Your task to perform on an android device: open chrome and create a bookmark for the current page Image 0: 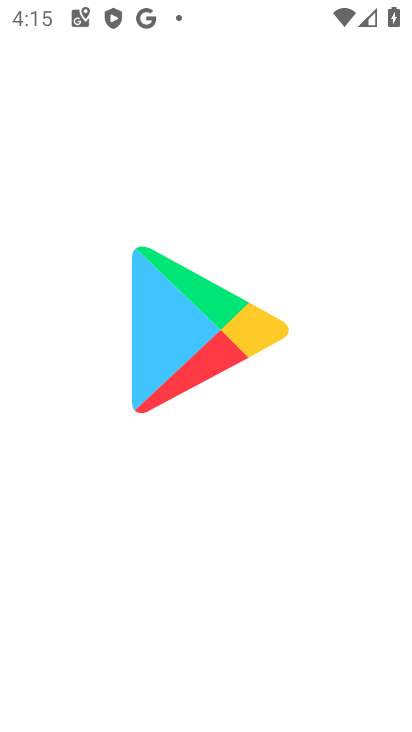
Step 0: click (295, 99)
Your task to perform on an android device: open chrome and create a bookmark for the current page Image 1: 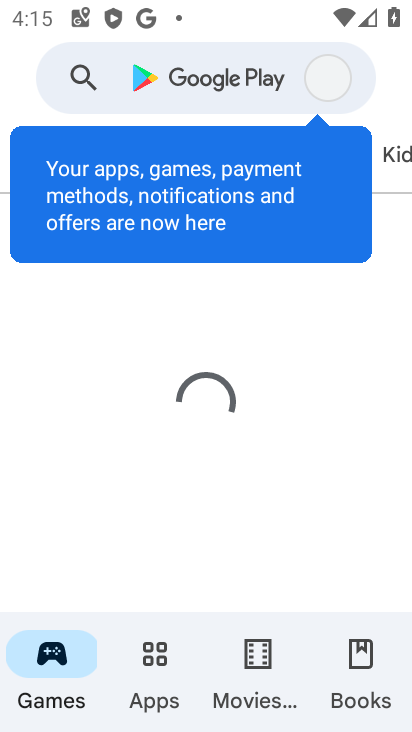
Step 1: press back button
Your task to perform on an android device: open chrome and create a bookmark for the current page Image 2: 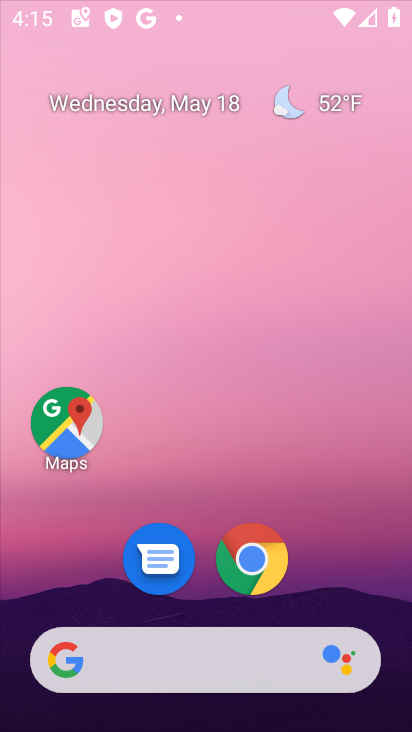
Step 2: press back button
Your task to perform on an android device: open chrome and create a bookmark for the current page Image 3: 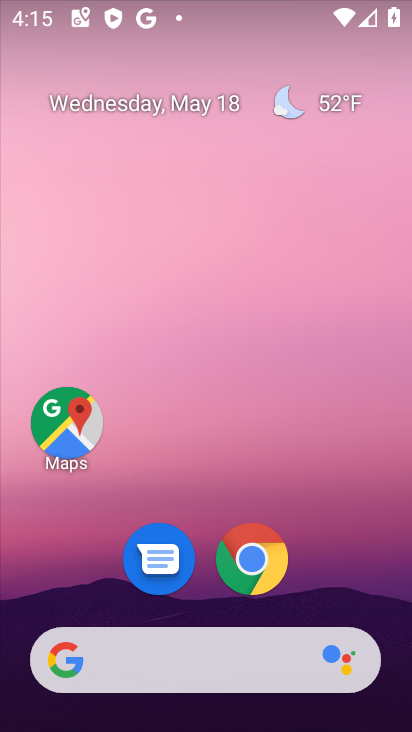
Step 3: click (264, 565)
Your task to perform on an android device: open chrome and create a bookmark for the current page Image 4: 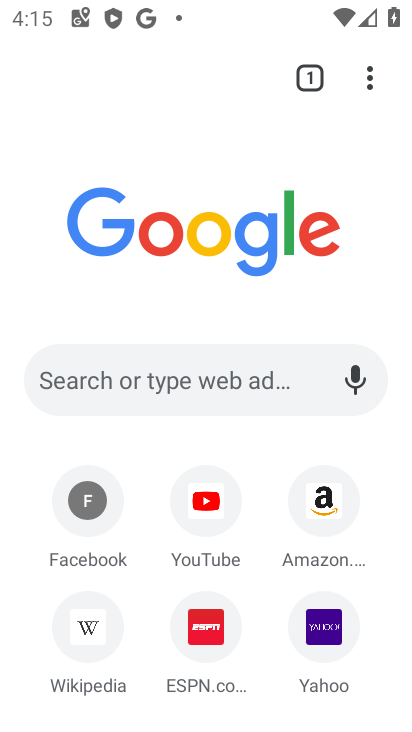
Step 4: task complete